Your task to perform on an android device: Go to settings Image 0: 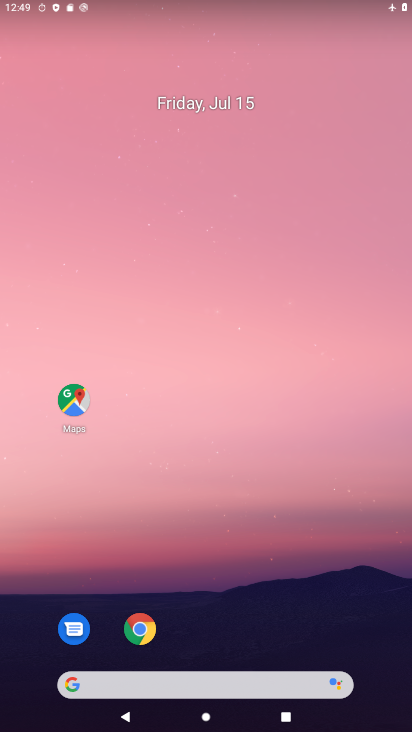
Step 0: drag from (229, 655) to (210, 242)
Your task to perform on an android device: Go to settings Image 1: 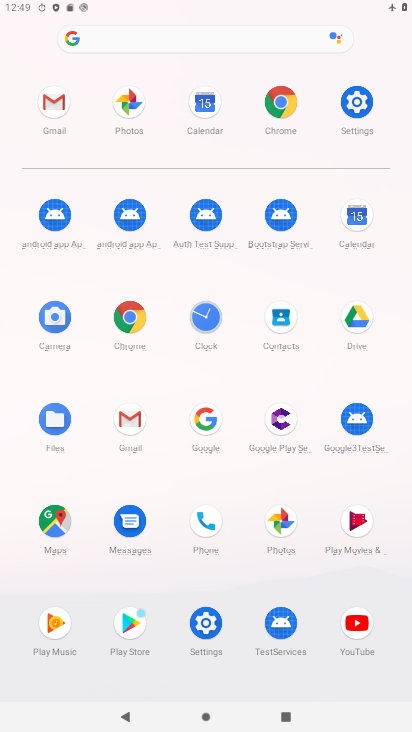
Step 1: click (203, 616)
Your task to perform on an android device: Go to settings Image 2: 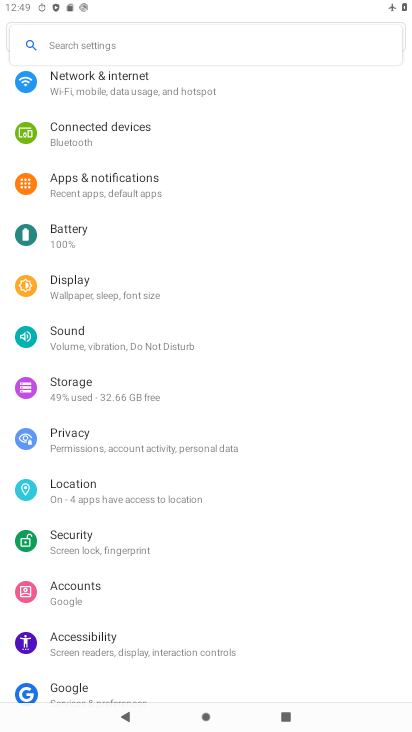
Step 2: task complete